Your task to perform on an android device: Open the calendar and show me this week's events Image 0: 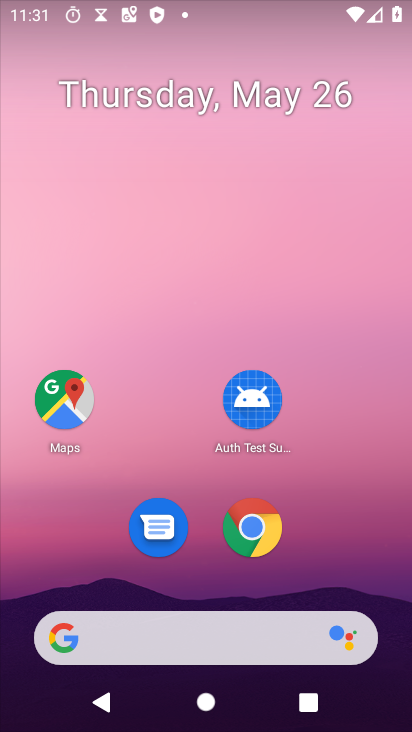
Step 0: drag from (409, 445) to (403, 45)
Your task to perform on an android device: Open the calendar and show me this week's events Image 1: 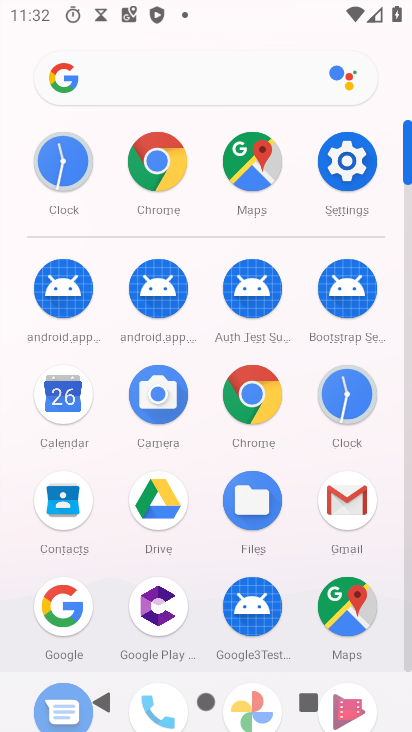
Step 1: drag from (312, 559) to (403, 43)
Your task to perform on an android device: Open the calendar and show me this week's events Image 2: 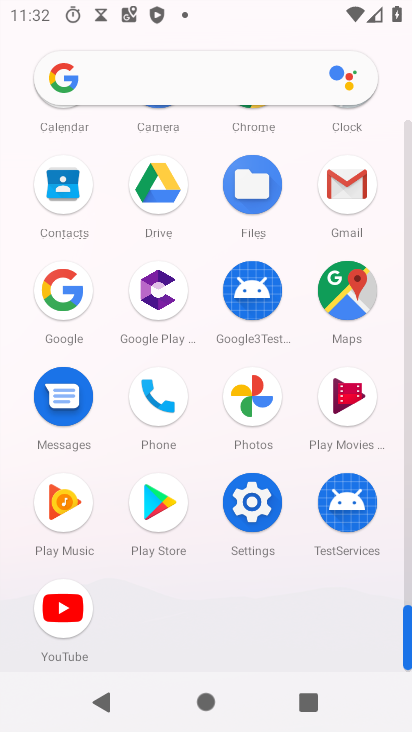
Step 2: drag from (76, 190) to (0, 643)
Your task to perform on an android device: Open the calendar and show me this week's events Image 3: 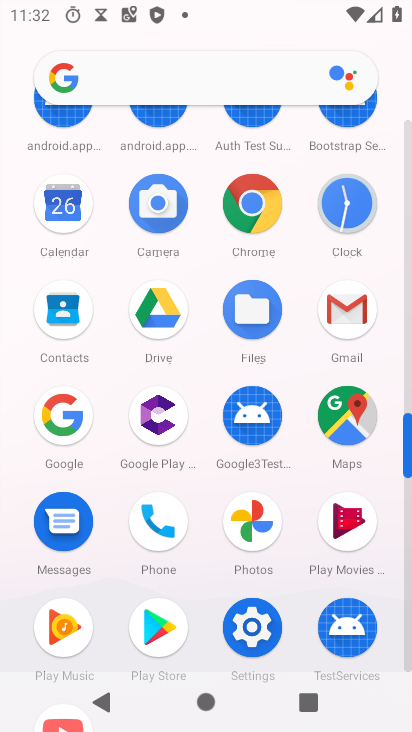
Step 3: drag from (61, 137) to (0, 600)
Your task to perform on an android device: Open the calendar and show me this week's events Image 4: 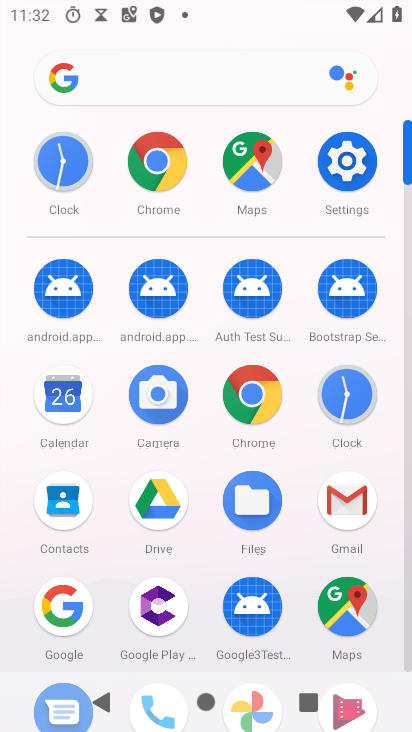
Step 4: click (67, 403)
Your task to perform on an android device: Open the calendar and show me this week's events Image 5: 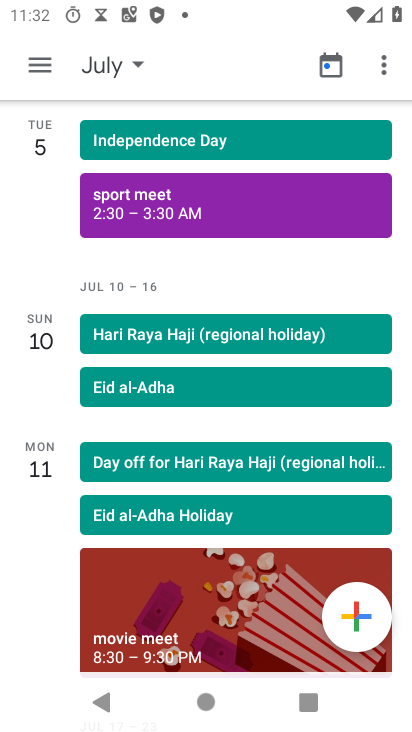
Step 5: click (113, 70)
Your task to perform on an android device: Open the calendar and show me this week's events Image 6: 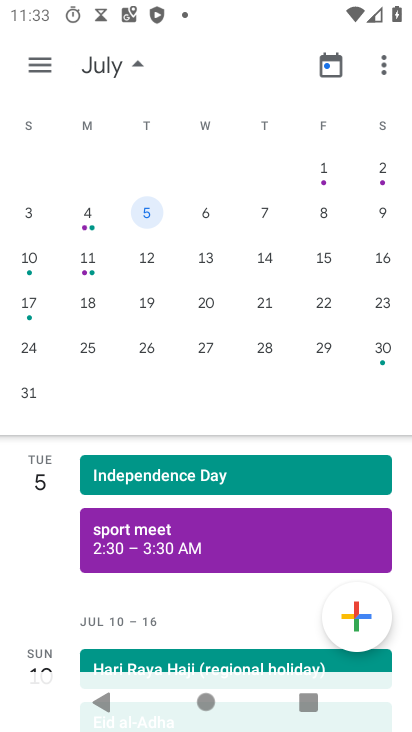
Step 6: task complete